Your task to perform on an android device: Open Google Chrome and open the bookmarks view Image 0: 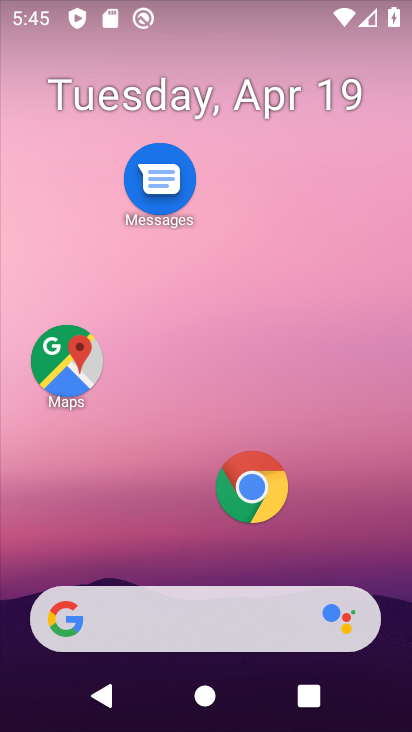
Step 0: drag from (209, 554) to (217, 1)
Your task to perform on an android device: Open Google Chrome and open the bookmarks view Image 1: 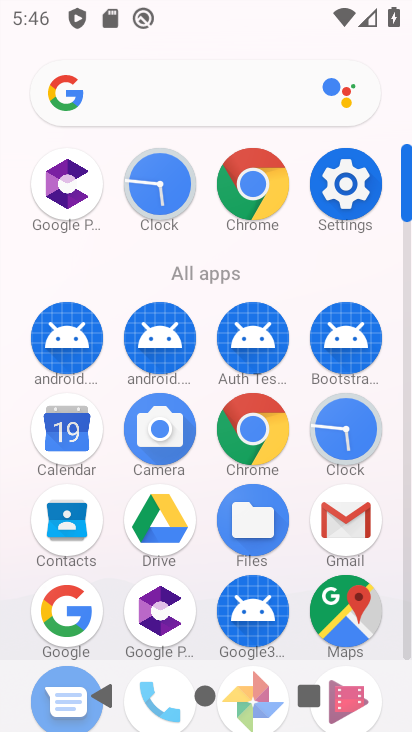
Step 1: click (254, 419)
Your task to perform on an android device: Open Google Chrome and open the bookmarks view Image 2: 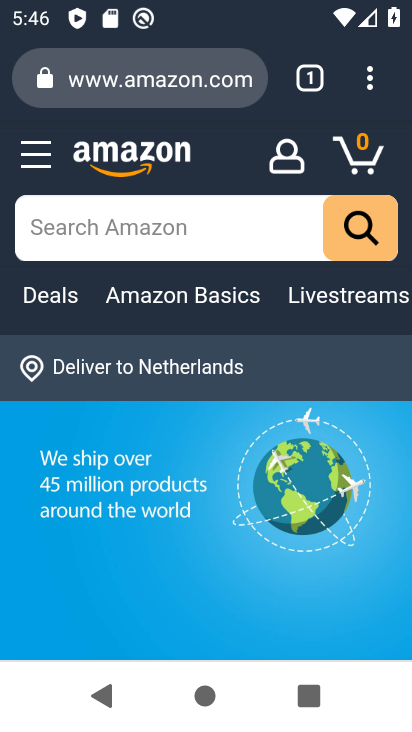
Step 2: click (368, 70)
Your task to perform on an android device: Open Google Chrome and open the bookmarks view Image 3: 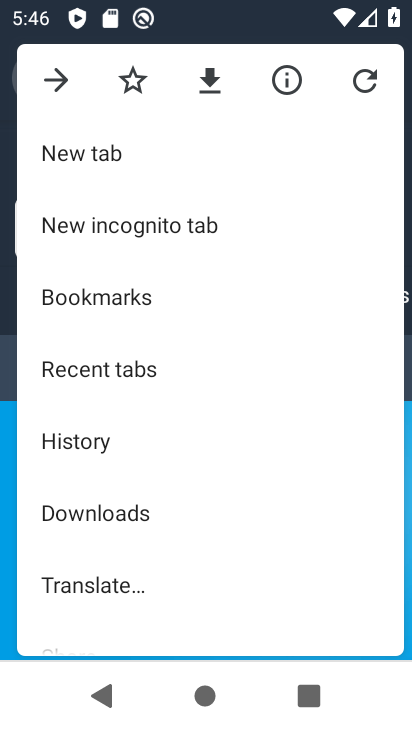
Step 3: click (165, 291)
Your task to perform on an android device: Open Google Chrome and open the bookmarks view Image 4: 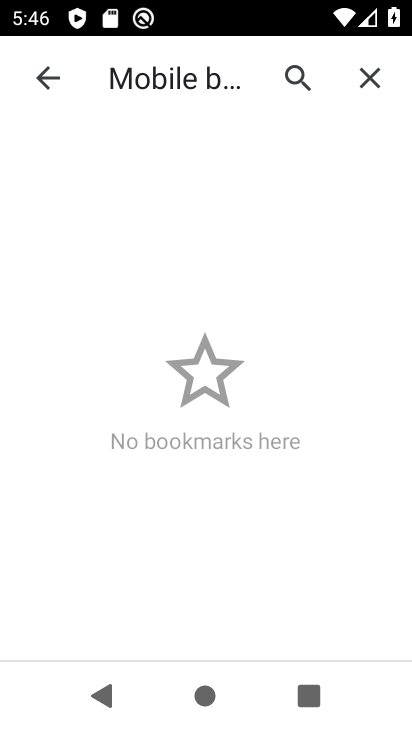
Step 4: task complete